Your task to perform on an android device: open wifi settings Image 0: 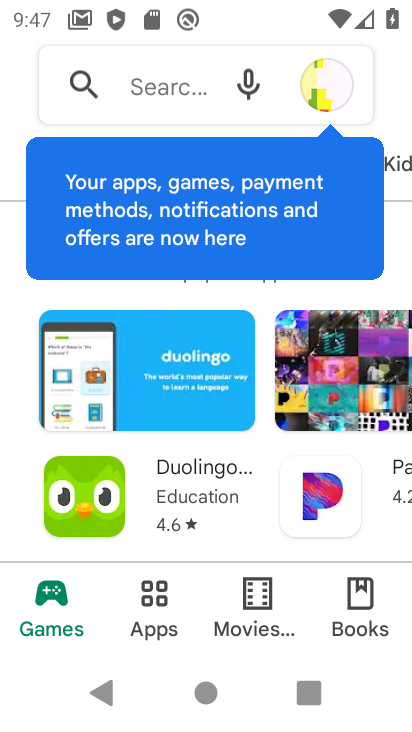
Step 0: press home button
Your task to perform on an android device: open wifi settings Image 1: 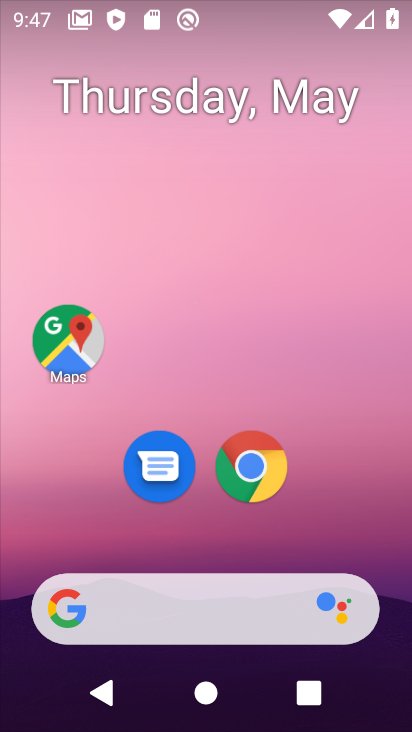
Step 1: drag from (334, 543) to (295, 35)
Your task to perform on an android device: open wifi settings Image 2: 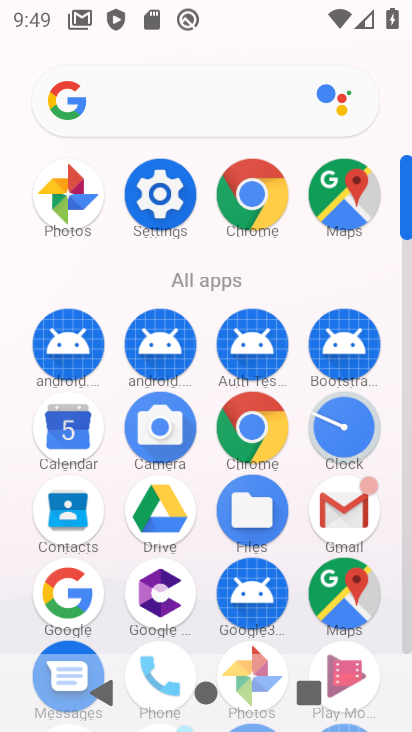
Step 2: click (173, 193)
Your task to perform on an android device: open wifi settings Image 3: 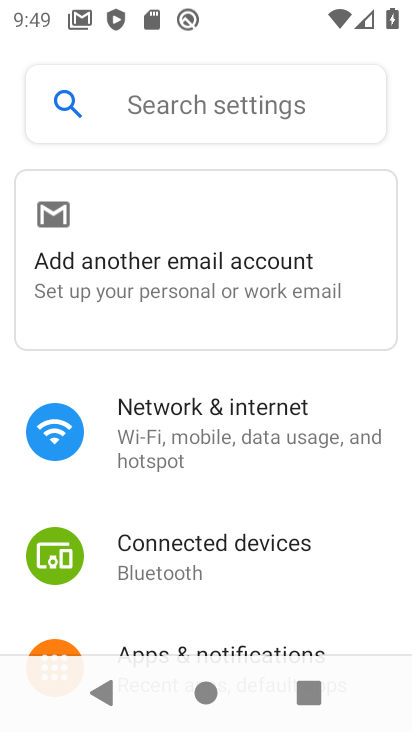
Step 3: click (188, 208)
Your task to perform on an android device: open wifi settings Image 4: 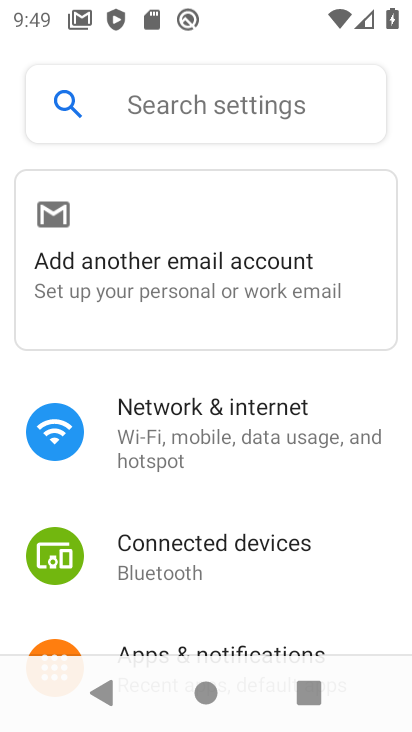
Step 4: click (248, 437)
Your task to perform on an android device: open wifi settings Image 5: 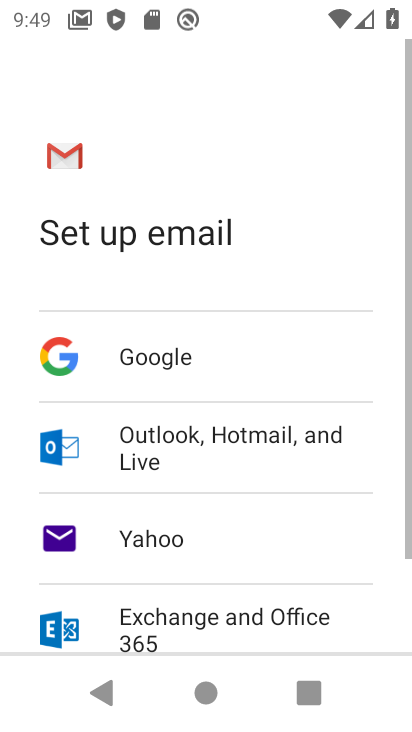
Step 5: press back button
Your task to perform on an android device: open wifi settings Image 6: 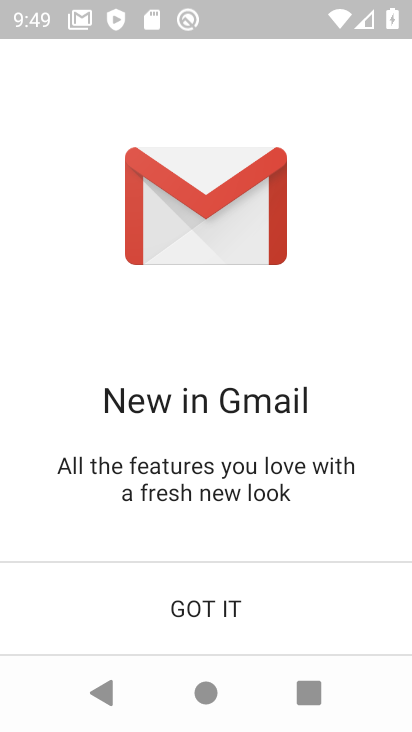
Step 6: press back button
Your task to perform on an android device: open wifi settings Image 7: 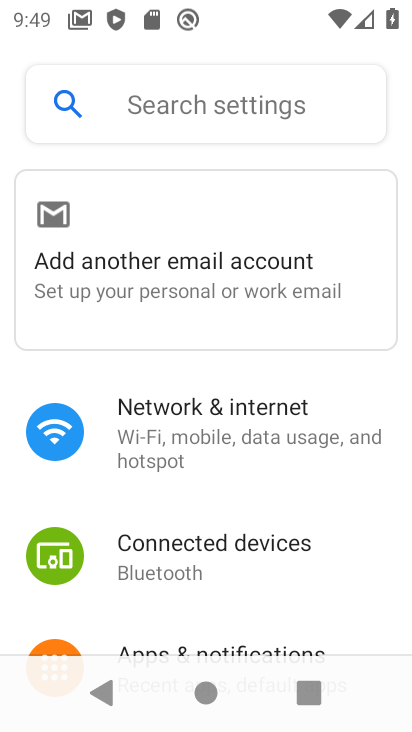
Step 7: drag from (266, 568) to (285, 405)
Your task to perform on an android device: open wifi settings Image 8: 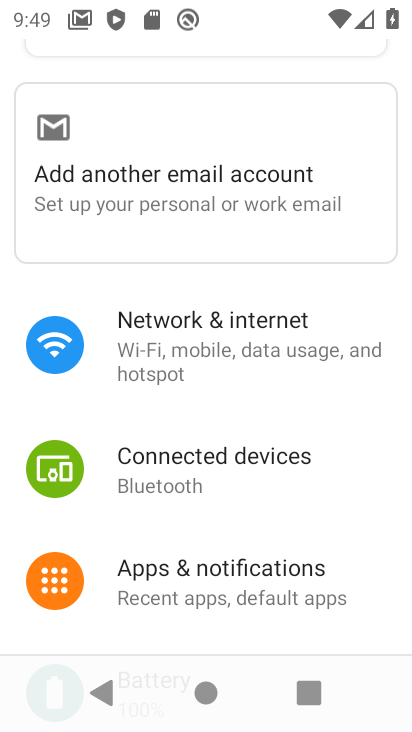
Step 8: click (236, 333)
Your task to perform on an android device: open wifi settings Image 9: 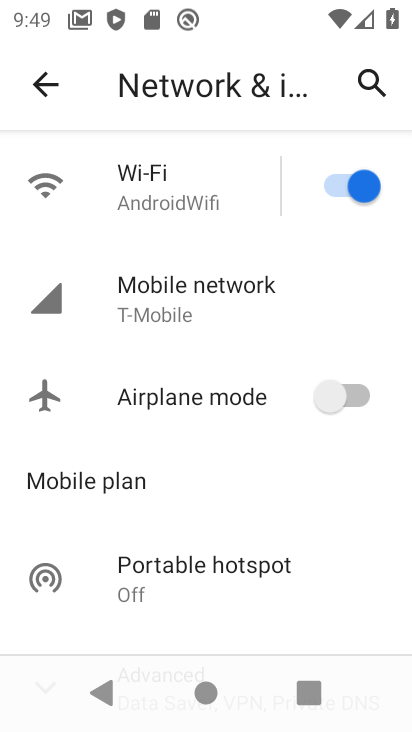
Step 9: click (227, 197)
Your task to perform on an android device: open wifi settings Image 10: 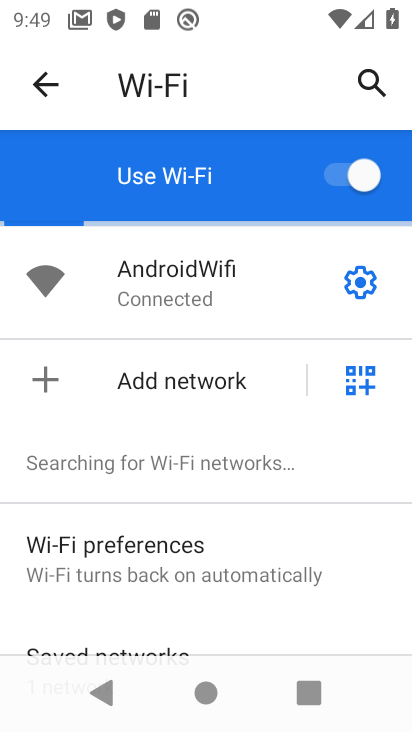
Step 10: click (356, 280)
Your task to perform on an android device: open wifi settings Image 11: 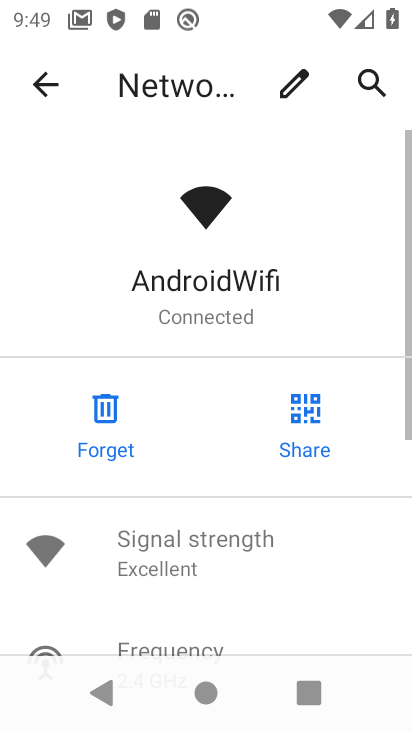
Step 11: task complete